Your task to perform on an android device: Open the stopwatch Image 0: 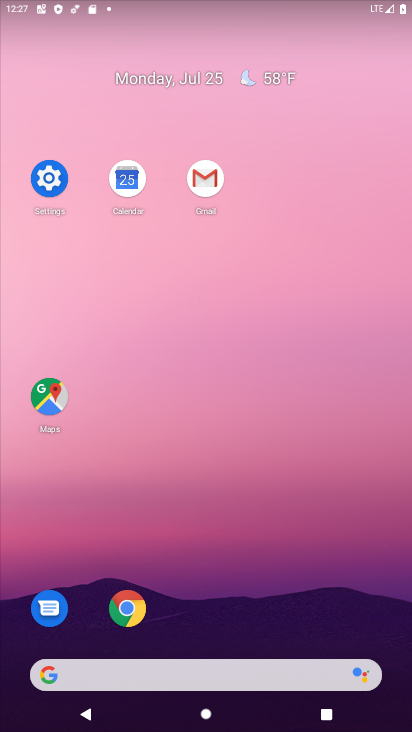
Step 0: drag from (300, 594) to (303, 76)
Your task to perform on an android device: Open the stopwatch Image 1: 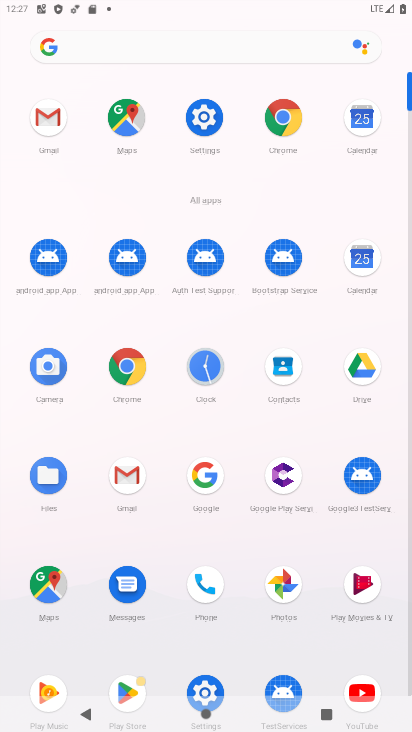
Step 1: drag from (203, 374) to (44, 266)
Your task to perform on an android device: Open the stopwatch Image 2: 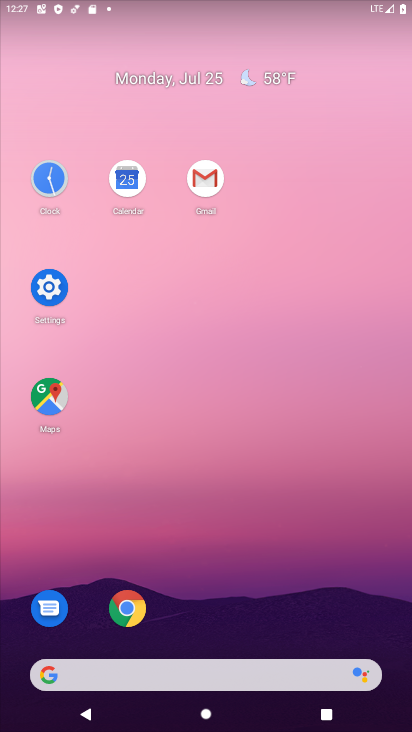
Step 2: click (48, 182)
Your task to perform on an android device: Open the stopwatch Image 3: 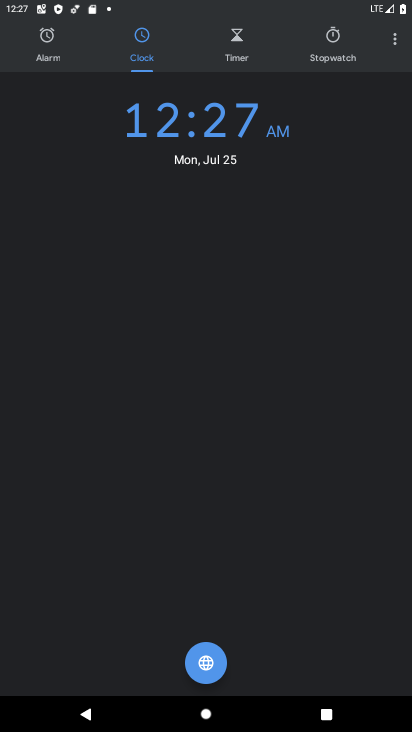
Step 3: click (350, 33)
Your task to perform on an android device: Open the stopwatch Image 4: 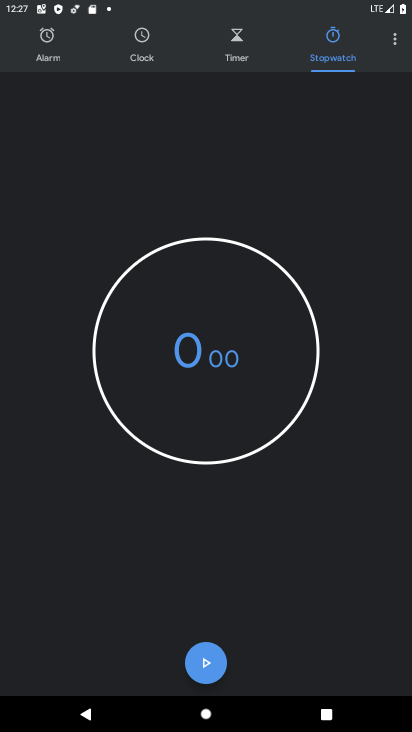
Step 4: click (255, 331)
Your task to perform on an android device: Open the stopwatch Image 5: 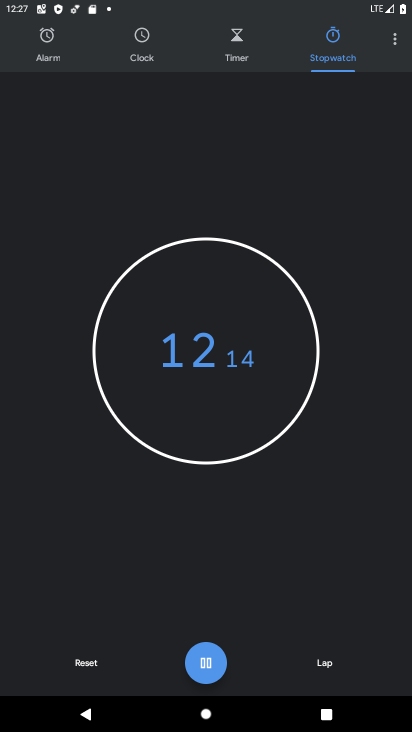
Step 5: task complete